Your task to perform on an android device: Check the weather Image 0: 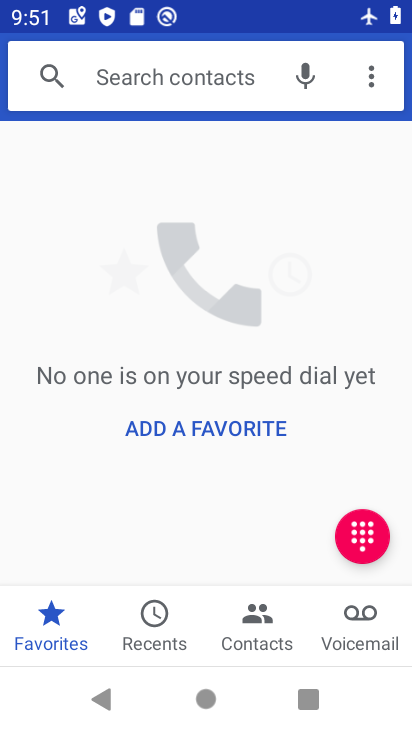
Step 0: press home button
Your task to perform on an android device: Check the weather Image 1: 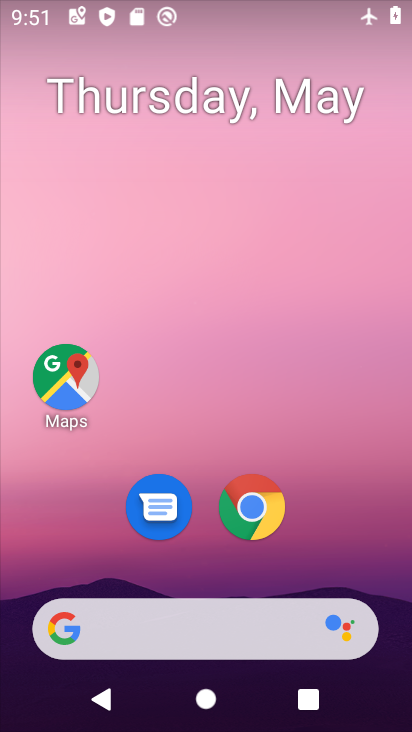
Step 1: drag from (200, 605) to (282, 42)
Your task to perform on an android device: Check the weather Image 2: 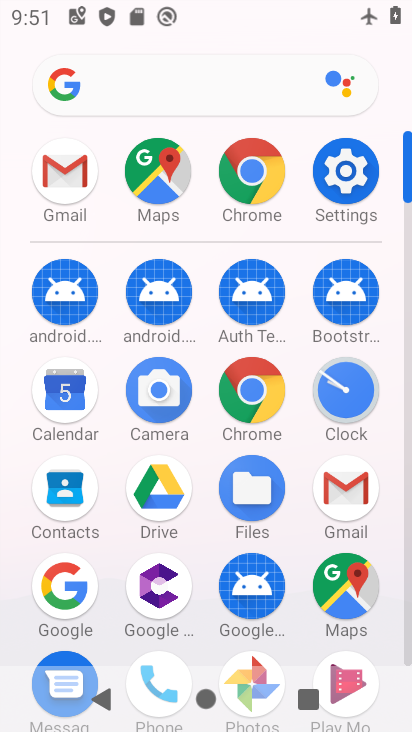
Step 2: drag from (220, 480) to (281, 60)
Your task to perform on an android device: Check the weather Image 3: 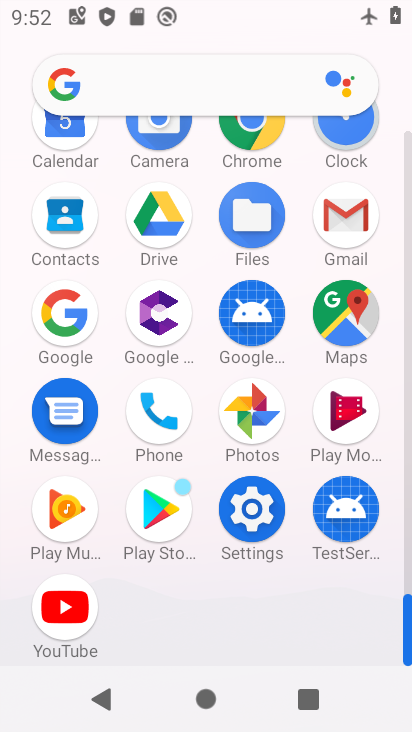
Step 3: click (78, 314)
Your task to perform on an android device: Check the weather Image 4: 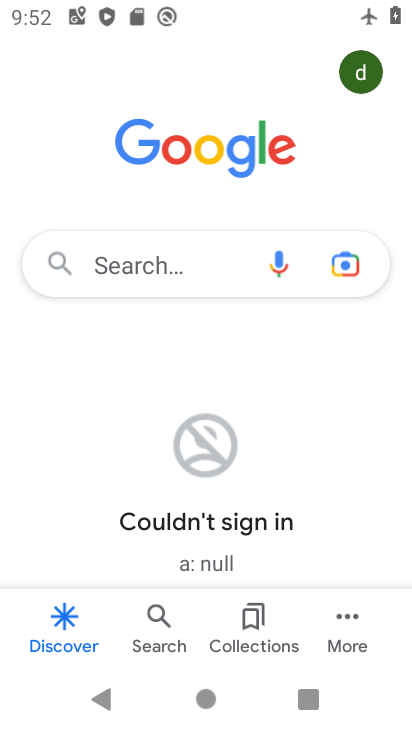
Step 4: task complete